Your task to perform on an android device: change timer sound Image 0: 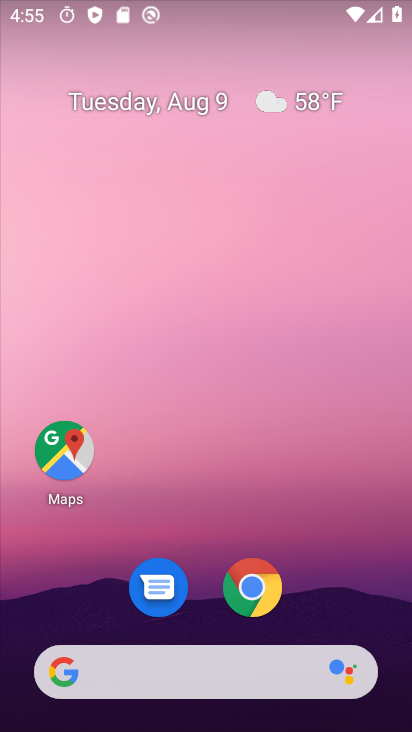
Step 0: drag from (207, 670) to (248, 121)
Your task to perform on an android device: change timer sound Image 1: 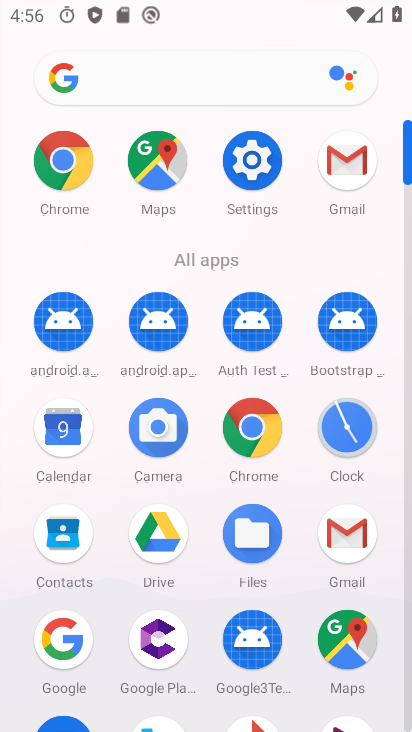
Step 1: click (365, 414)
Your task to perform on an android device: change timer sound Image 2: 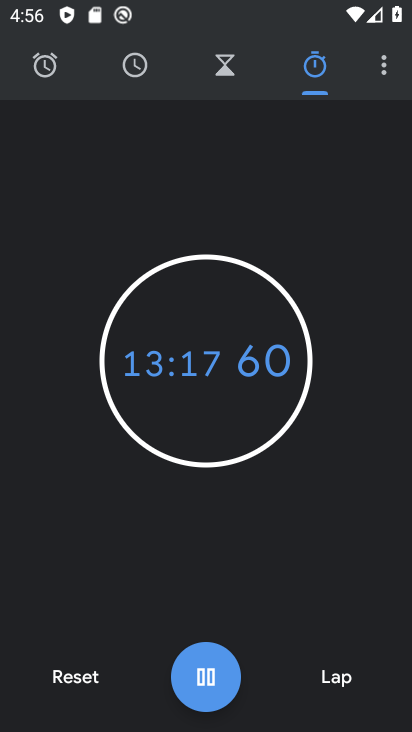
Step 2: click (379, 60)
Your task to perform on an android device: change timer sound Image 3: 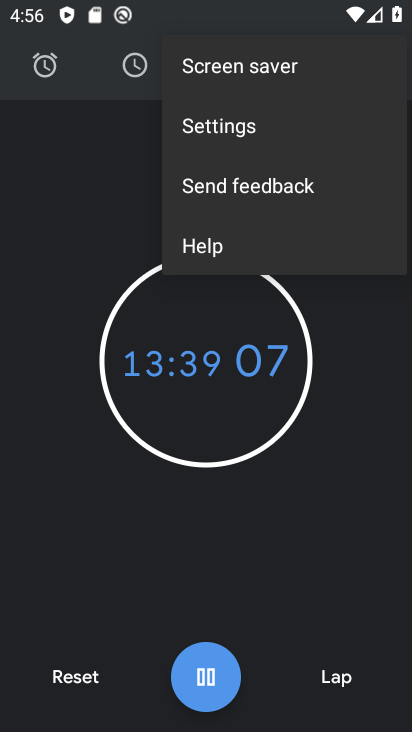
Step 3: click (222, 127)
Your task to perform on an android device: change timer sound Image 4: 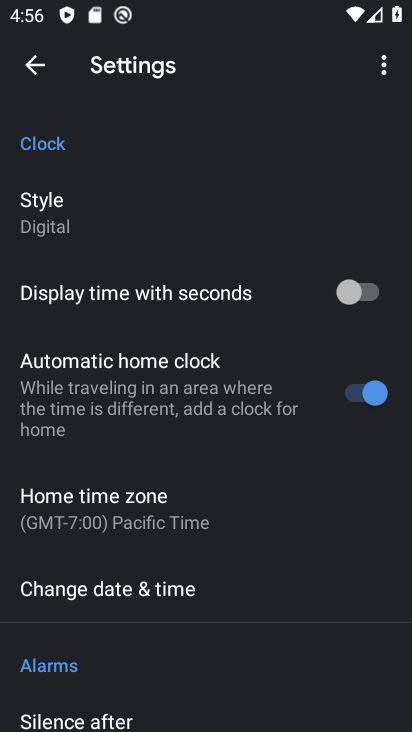
Step 4: drag from (154, 602) to (127, 78)
Your task to perform on an android device: change timer sound Image 5: 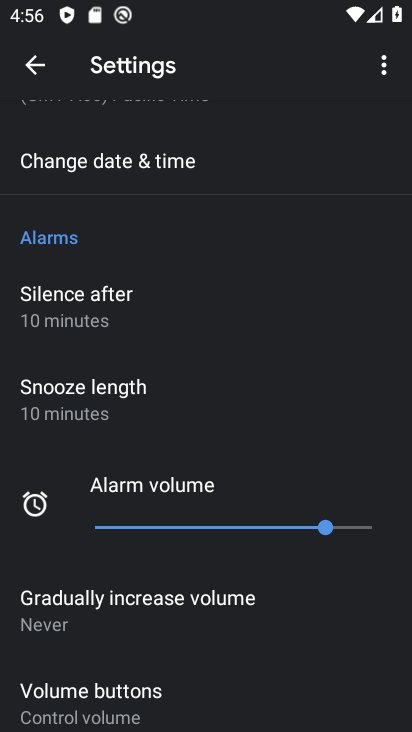
Step 5: drag from (86, 464) to (79, 28)
Your task to perform on an android device: change timer sound Image 6: 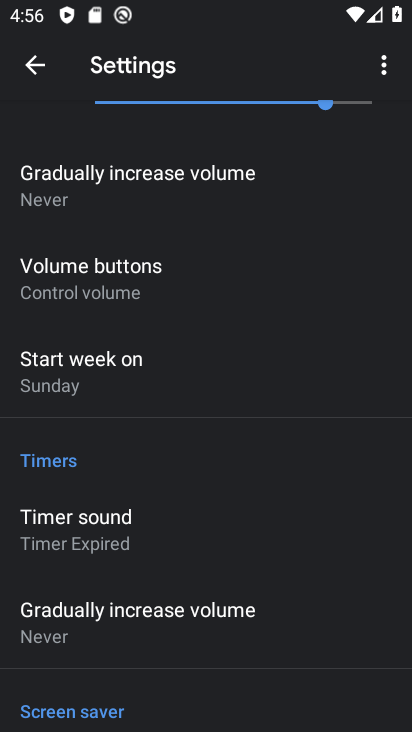
Step 6: click (151, 529)
Your task to perform on an android device: change timer sound Image 7: 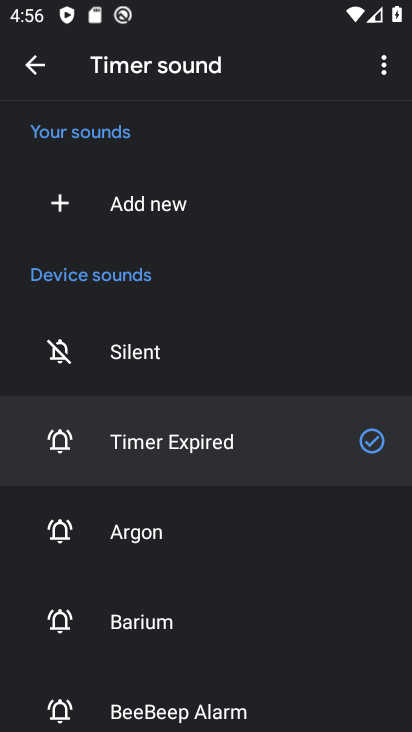
Step 7: click (185, 622)
Your task to perform on an android device: change timer sound Image 8: 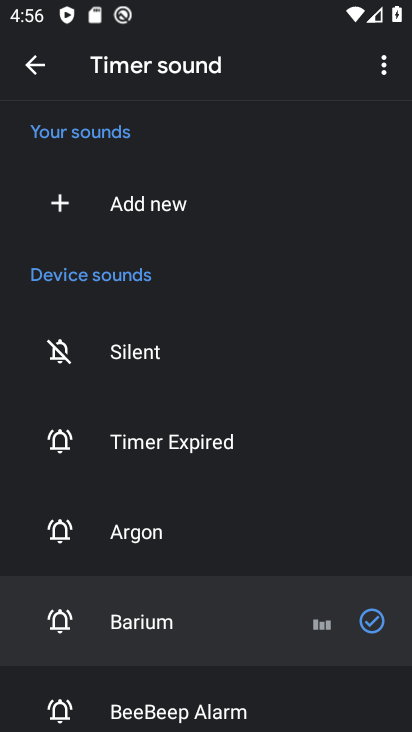
Step 8: task complete